Your task to perform on an android device: Go to accessibility settings Image 0: 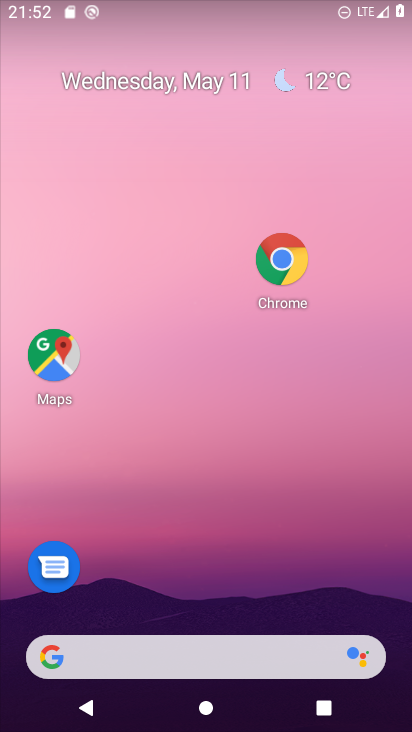
Step 0: drag from (121, 666) to (281, 147)
Your task to perform on an android device: Go to accessibility settings Image 1: 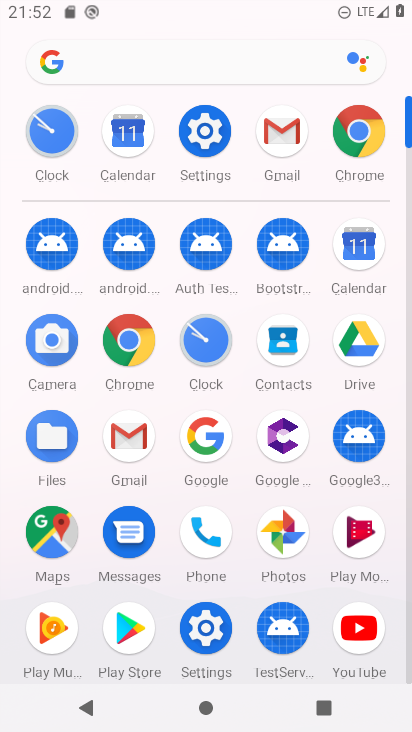
Step 1: click (220, 138)
Your task to perform on an android device: Go to accessibility settings Image 2: 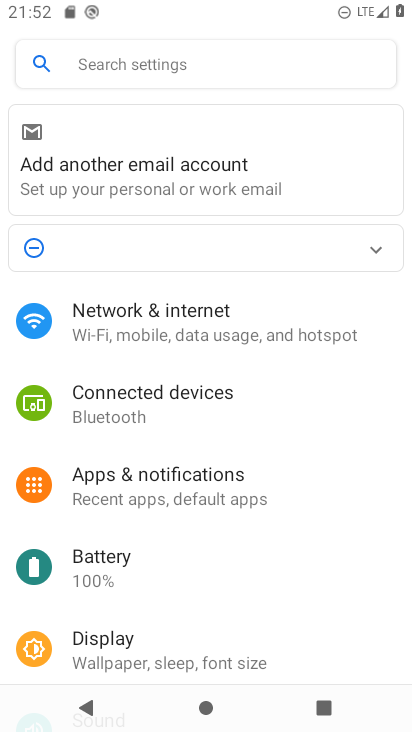
Step 2: drag from (194, 598) to (309, 109)
Your task to perform on an android device: Go to accessibility settings Image 3: 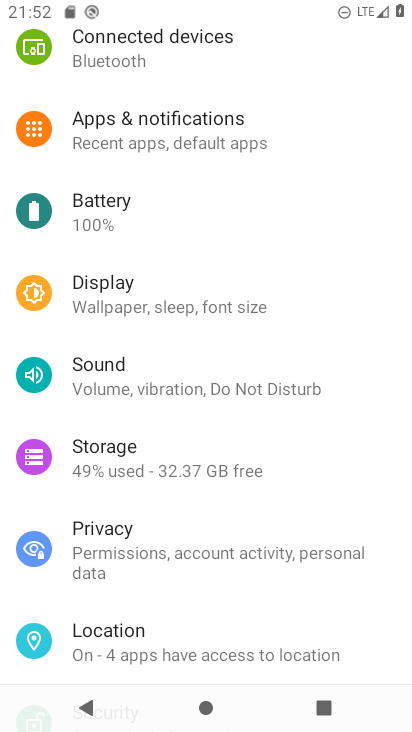
Step 3: drag from (162, 631) to (260, 248)
Your task to perform on an android device: Go to accessibility settings Image 4: 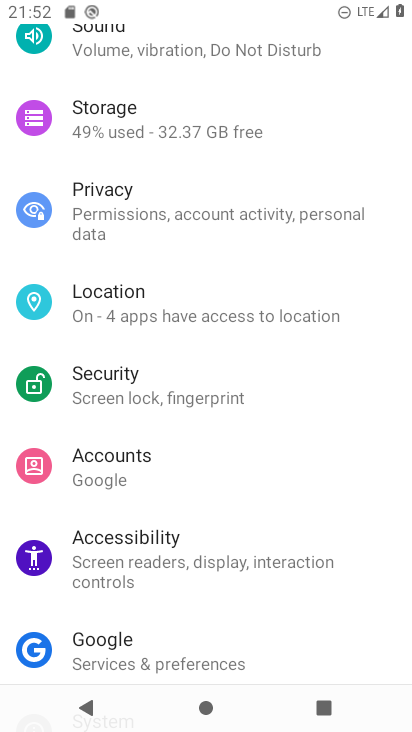
Step 4: click (144, 533)
Your task to perform on an android device: Go to accessibility settings Image 5: 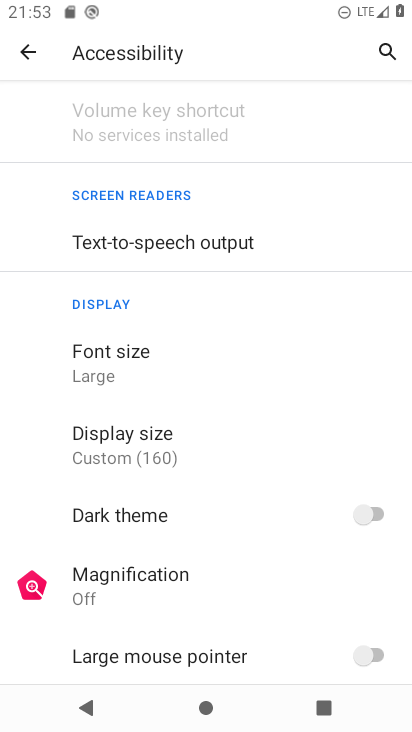
Step 5: task complete